Your task to perform on an android device: turn on airplane mode Image 0: 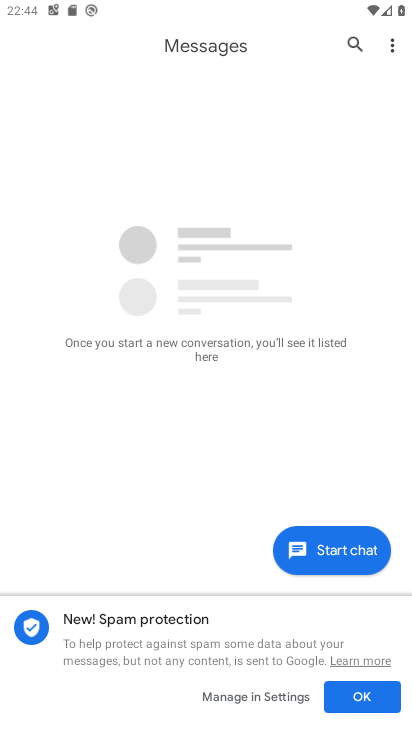
Step 0: drag from (253, 433) to (354, 302)
Your task to perform on an android device: turn on airplane mode Image 1: 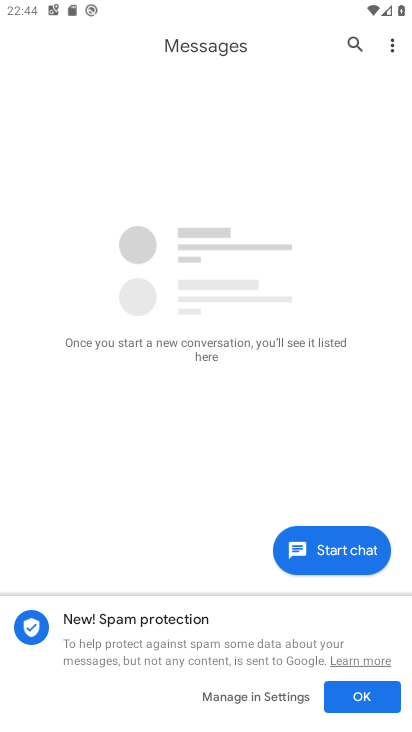
Step 1: press home button
Your task to perform on an android device: turn on airplane mode Image 2: 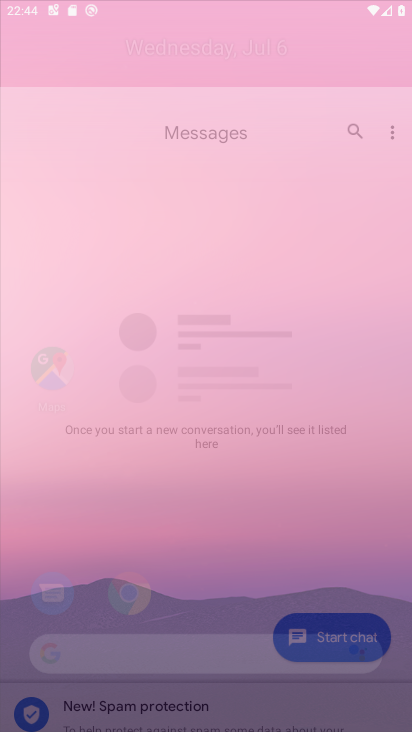
Step 2: drag from (210, 531) to (284, 212)
Your task to perform on an android device: turn on airplane mode Image 3: 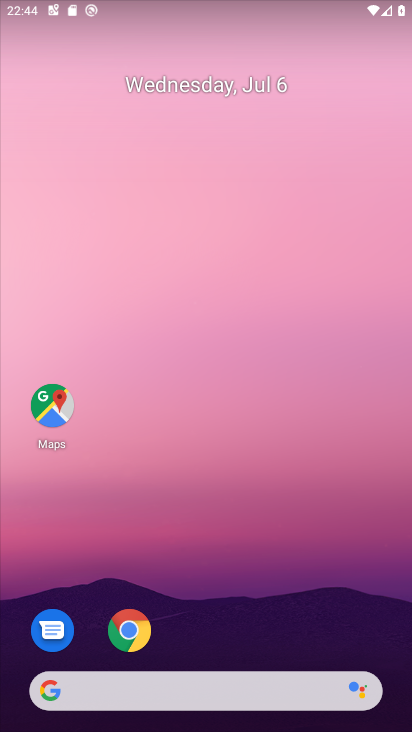
Step 3: drag from (180, 652) to (272, 200)
Your task to perform on an android device: turn on airplane mode Image 4: 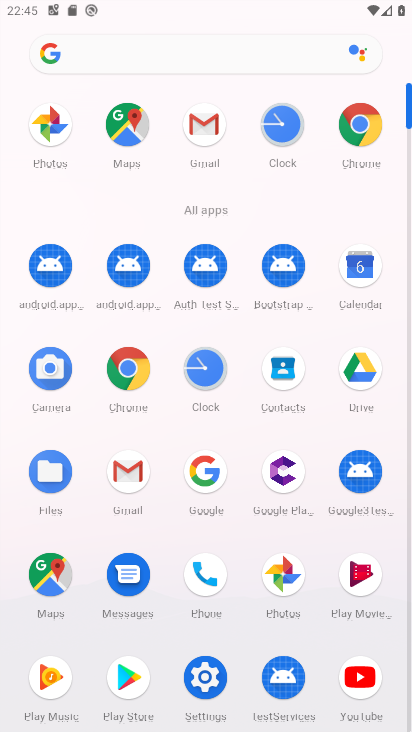
Step 4: click (208, 668)
Your task to perform on an android device: turn on airplane mode Image 5: 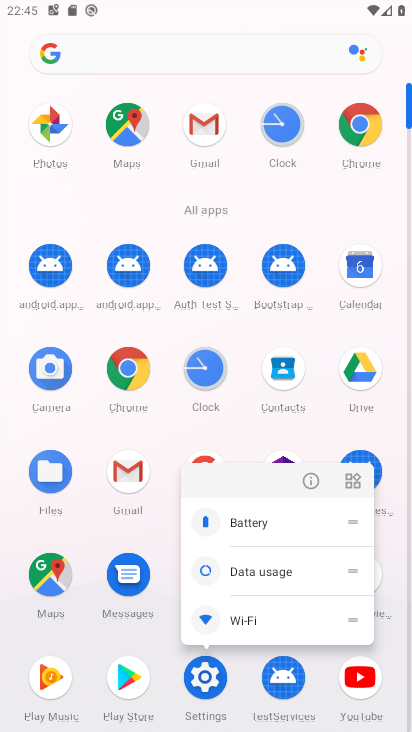
Step 5: click (306, 479)
Your task to perform on an android device: turn on airplane mode Image 6: 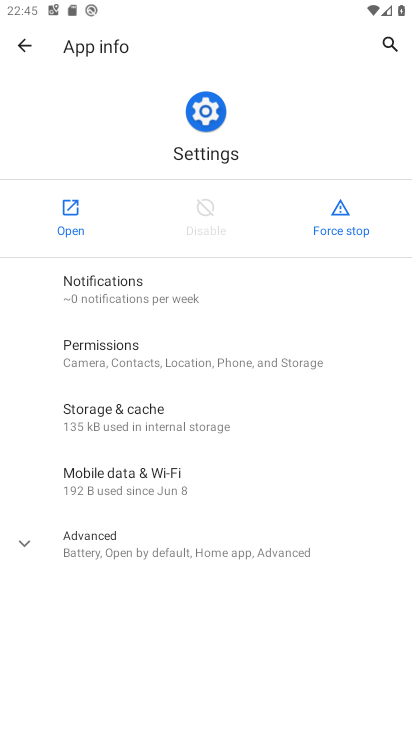
Step 6: click (77, 217)
Your task to perform on an android device: turn on airplane mode Image 7: 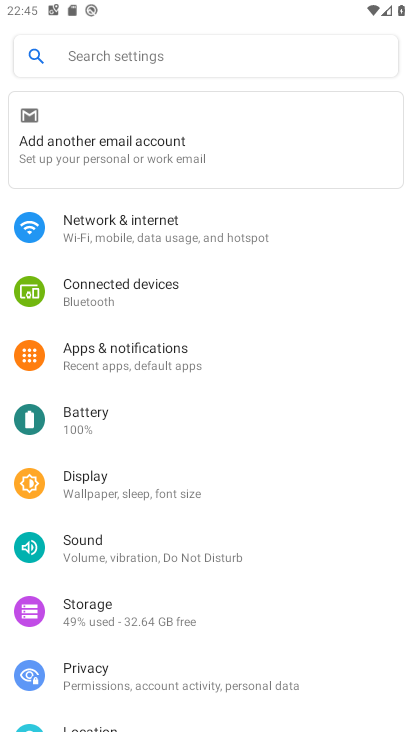
Step 7: click (135, 234)
Your task to perform on an android device: turn on airplane mode Image 8: 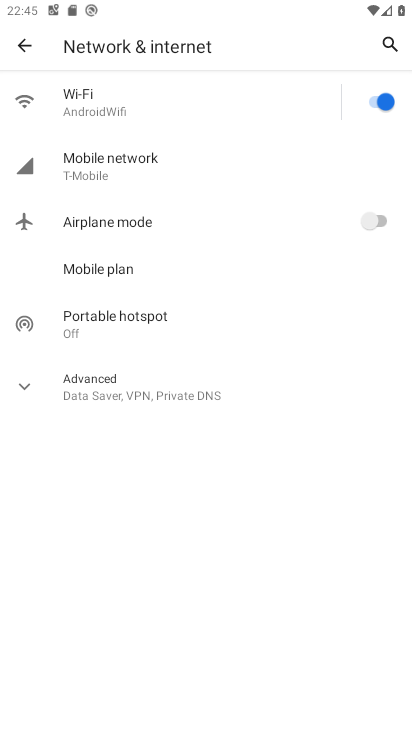
Step 8: click (157, 224)
Your task to perform on an android device: turn on airplane mode Image 9: 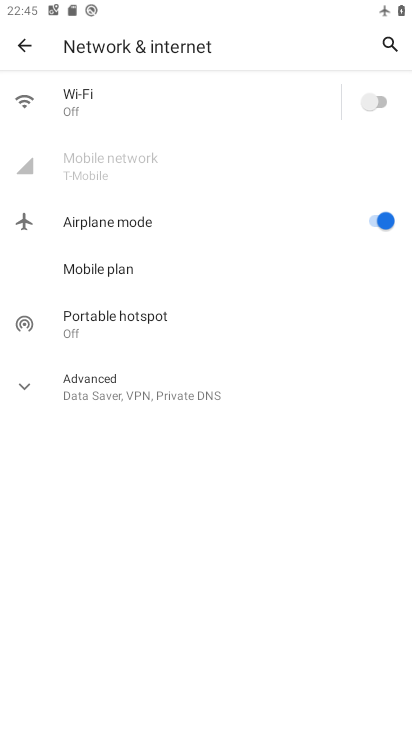
Step 9: task complete